Your task to perform on an android device: turn off priority inbox in the gmail app Image 0: 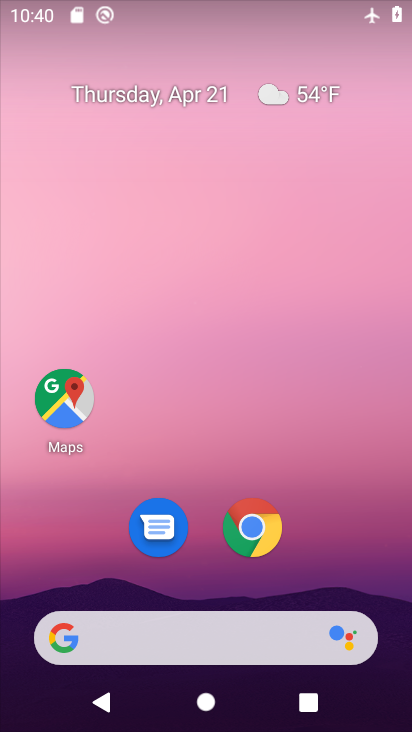
Step 0: drag from (309, 538) to (344, 198)
Your task to perform on an android device: turn off priority inbox in the gmail app Image 1: 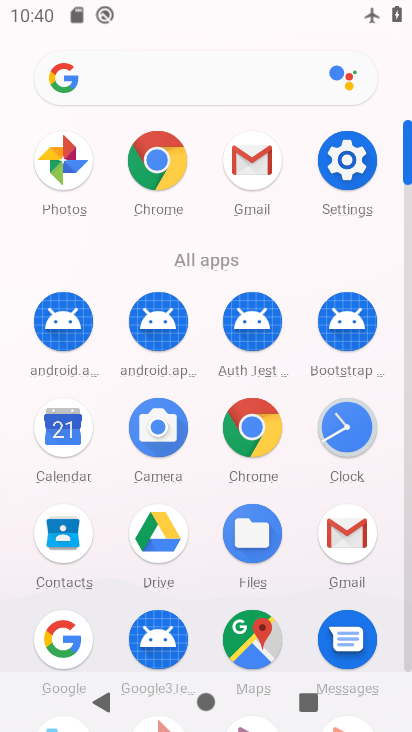
Step 1: click (256, 176)
Your task to perform on an android device: turn off priority inbox in the gmail app Image 2: 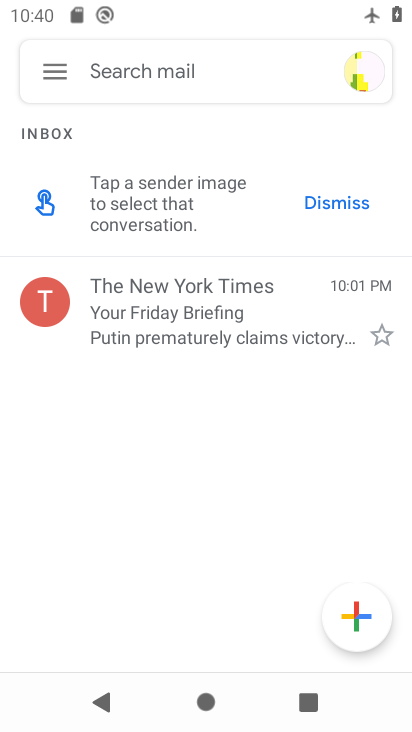
Step 2: click (64, 76)
Your task to perform on an android device: turn off priority inbox in the gmail app Image 3: 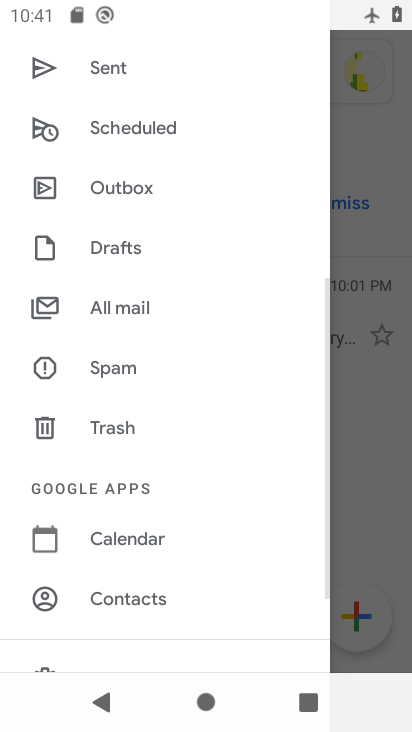
Step 3: drag from (170, 609) to (171, 218)
Your task to perform on an android device: turn off priority inbox in the gmail app Image 4: 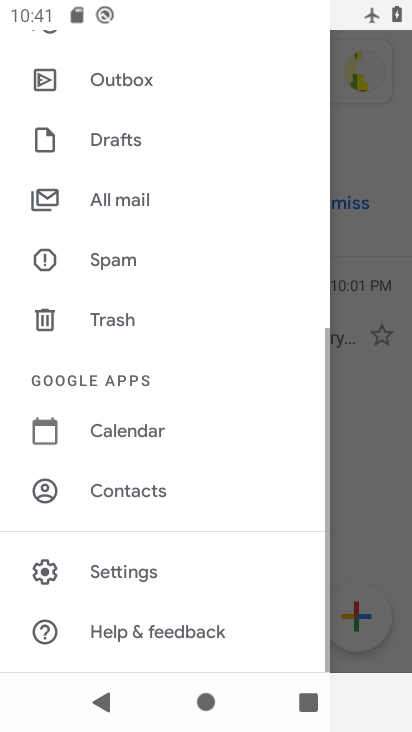
Step 4: click (142, 565)
Your task to perform on an android device: turn off priority inbox in the gmail app Image 5: 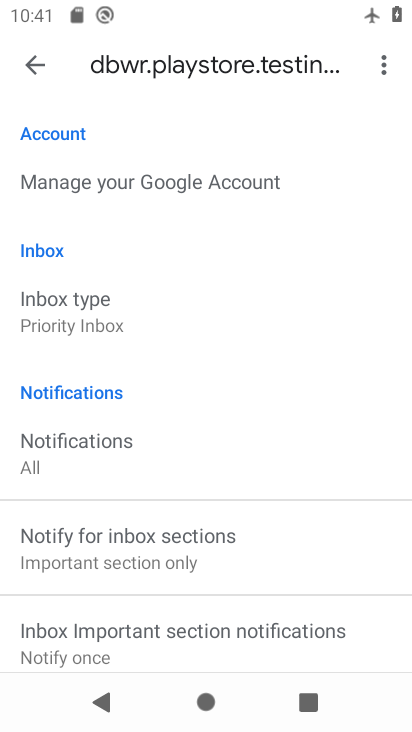
Step 5: task complete